Your task to perform on an android device: snooze an email in the gmail app Image 0: 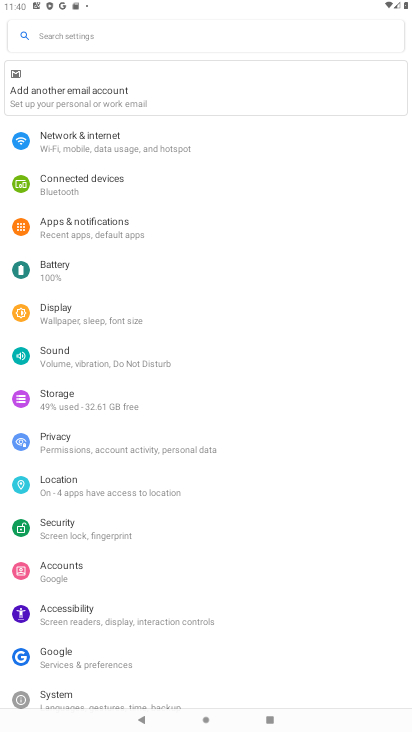
Step 0: press home button
Your task to perform on an android device: snooze an email in the gmail app Image 1: 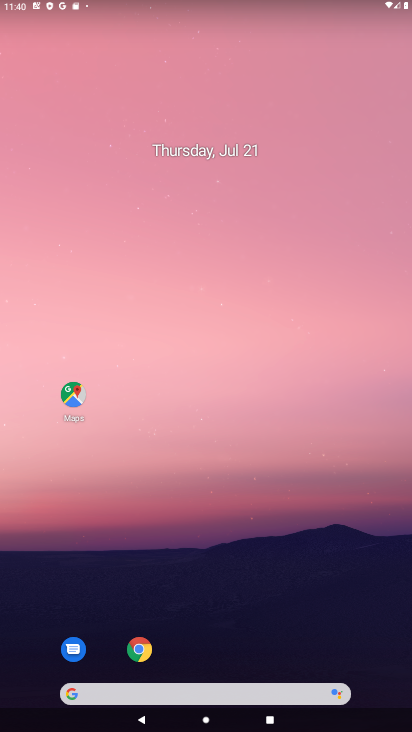
Step 1: drag from (233, 729) to (233, 181)
Your task to perform on an android device: snooze an email in the gmail app Image 2: 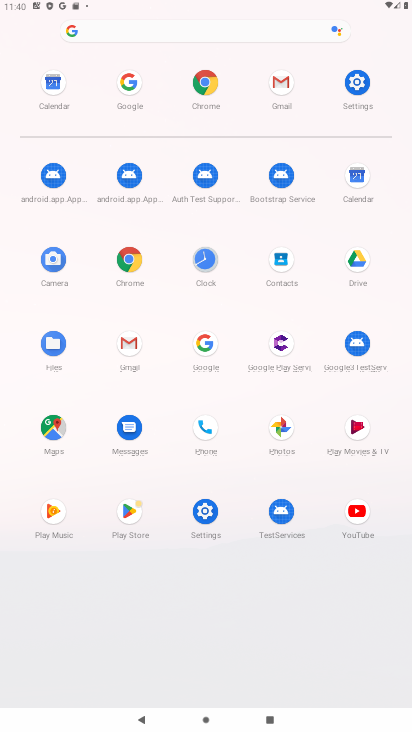
Step 2: click (122, 346)
Your task to perform on an android device: snooze an email in the gmail app Image 3: 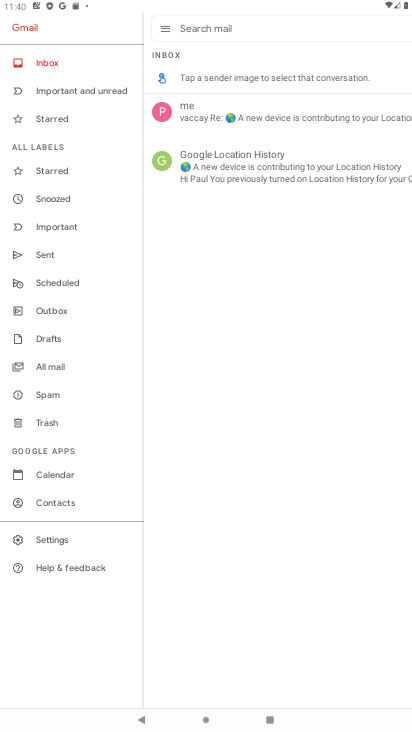
Step 3: click (56, 62)
Your task to perform on an android device: snooze an email in the gmail app Image 4: 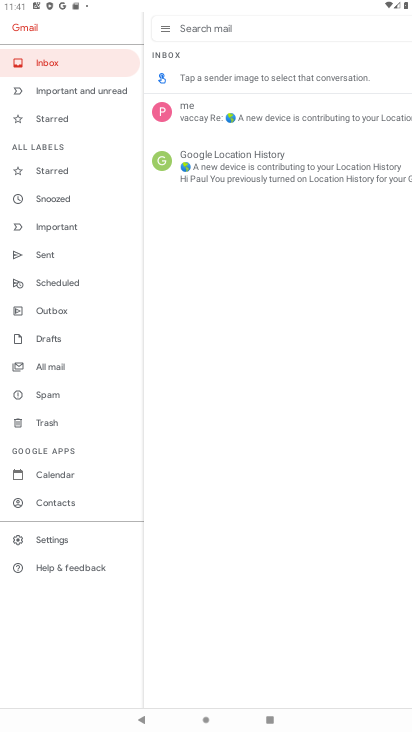
Step 4: click (230, 106)
Your task to perform on an android device: snooze an email in the gmail app Image 5: 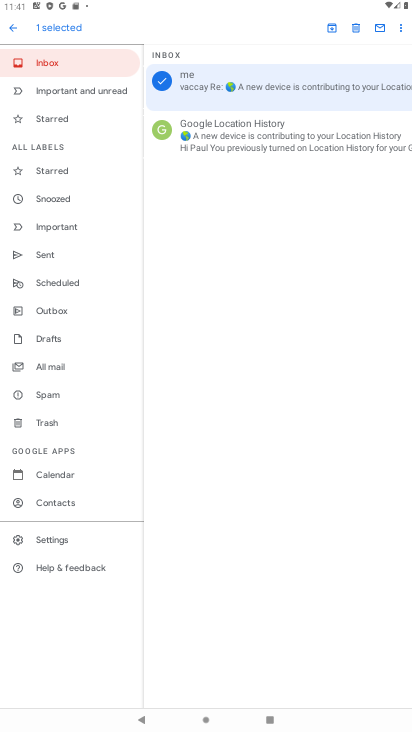
Step 5: click (401, 30)
Your task to perform on an android device: snooze an email in the gmail app Image 6: 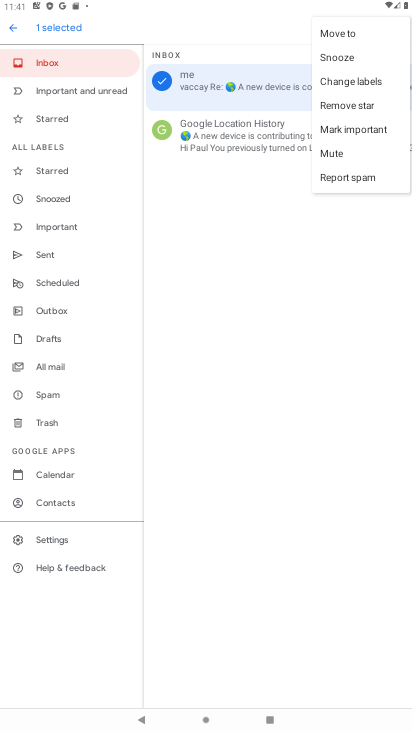
Step 6: click (345, 56)
Your task to perform on an android device: snooze an email in the gmail app Image 7: 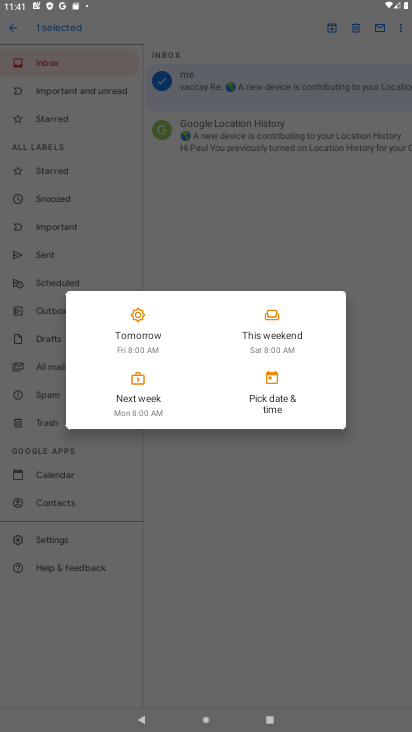
Step 7: click (140, 332)
Your task to perform on an android device: snooze an email in the gmail app Image 8: 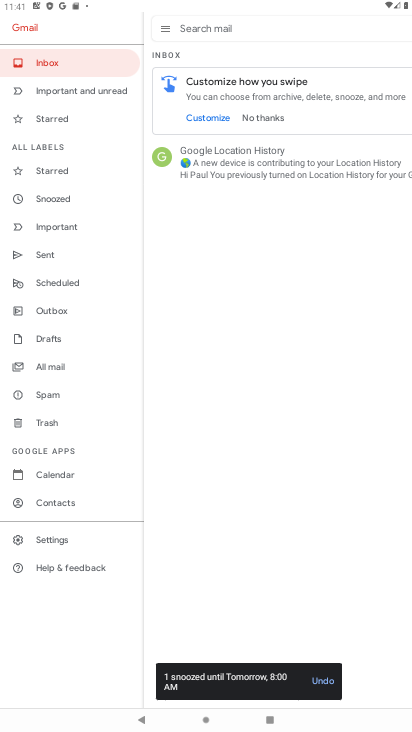
Step 8: task complete